Your task to perform on an android device: Open notification settings Image 0: 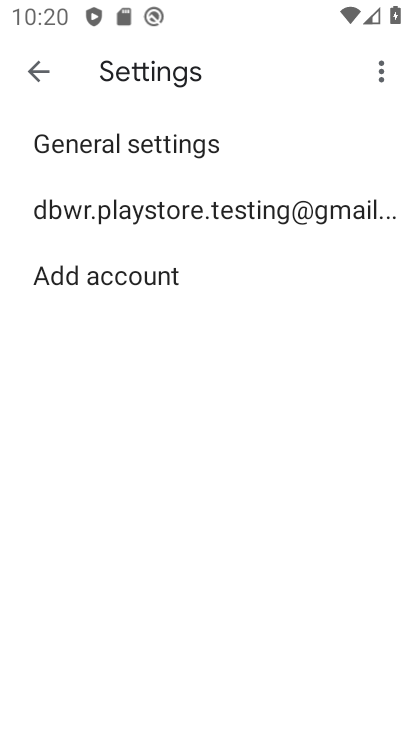
Step 0: press home button
Your task to perform on an android device: Open notification settings Image 1: 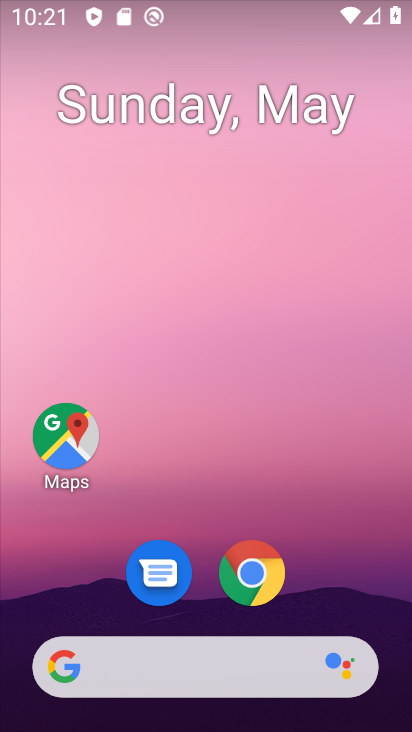
Step 1: drag from (385, 567) to (287, 58)
Your task to perform on an android device: Open notification settings Image 2: 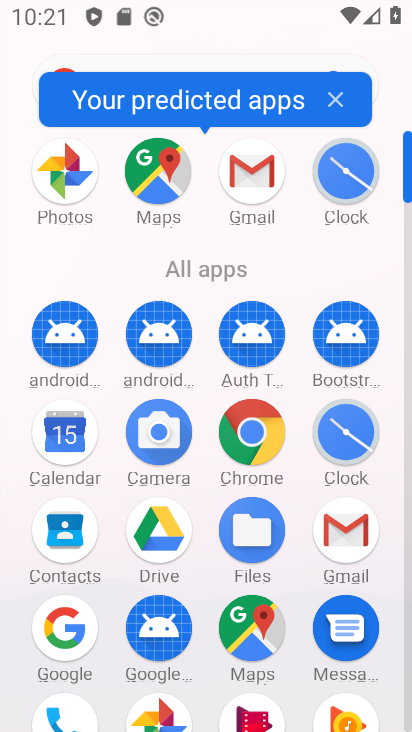
Step 2: click (411, 668)
Your task to perform on an android device: Open notification settings Image 3: 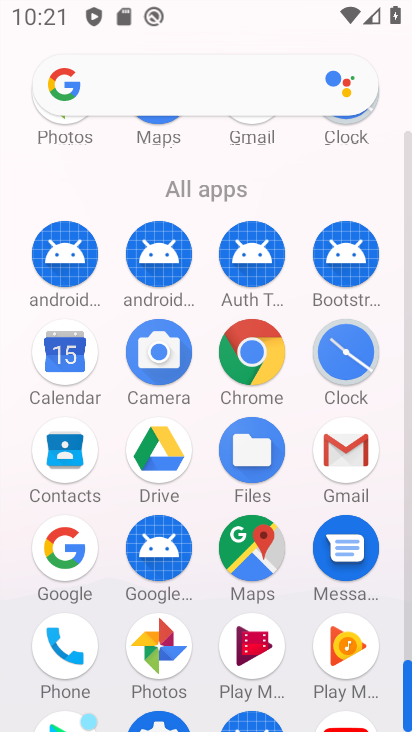
Step 3: click (169, 724)
Your task to perform on an android device: Open notification settings Image 4: 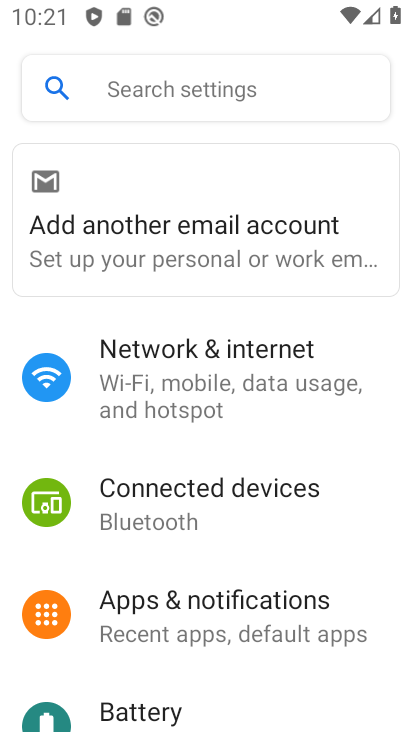
Step 4: click (282, 606)
Your task to perform on an android device: Open notification settings Image 5: 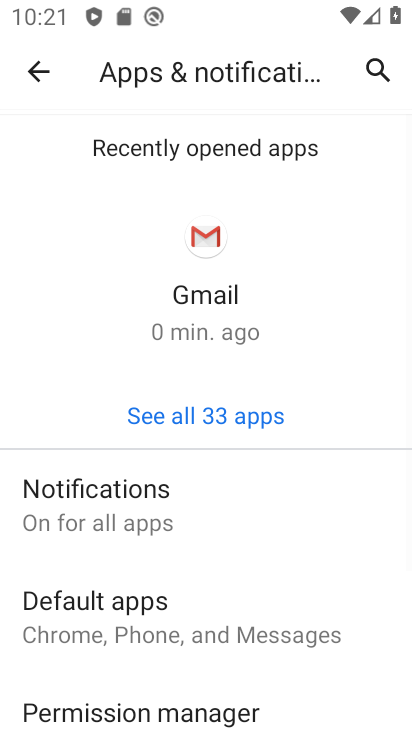
Step 5: click (235, 526)
Your task to perform on an android device: Open notification settings Image 6: 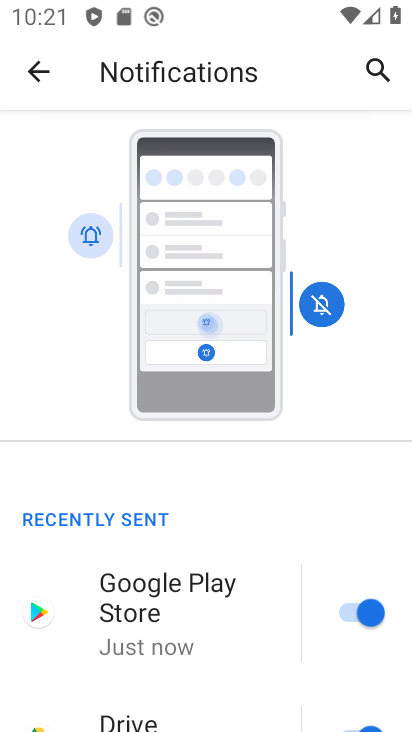
Step 6: task complete